Your task to perform on an android device: Open display settings Image 0: 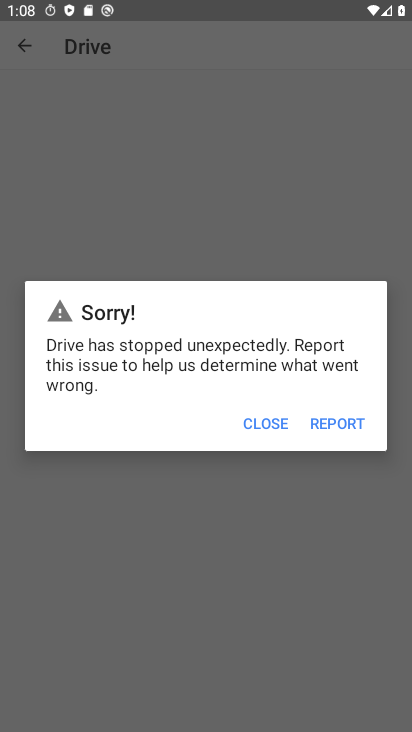
Step 0: press home button
Your task to perform on an android device: Open display settings Image 1: 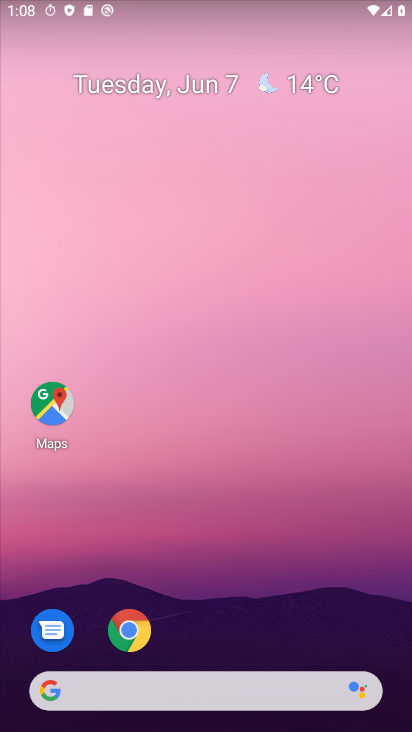
Step 1: drag from (216, 621) to (374, 6)
Your task to perform on an android device: Open display settings Image 2: 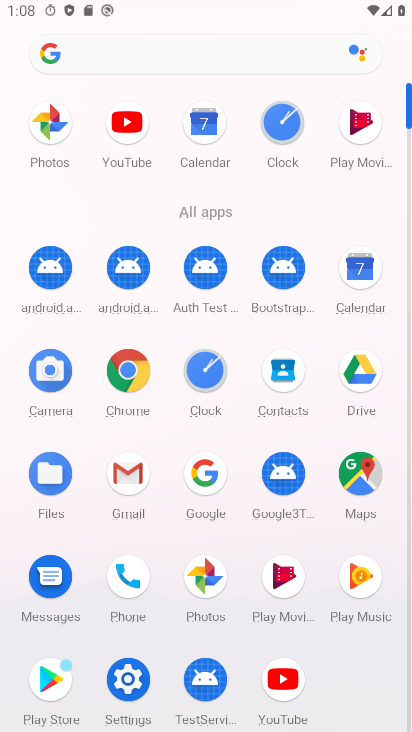
Step 2: click (138, 679)
Your task to perform on an android device: Open display settings Image 3: 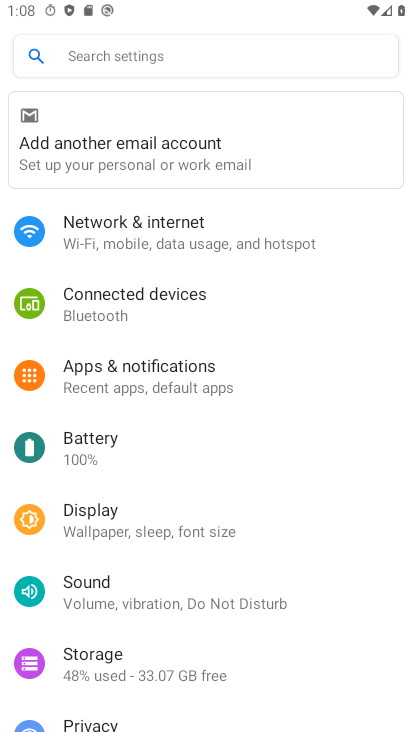
Step 3: click (105, 527)
Your task to perform on an android device: Open display settings Image 4: 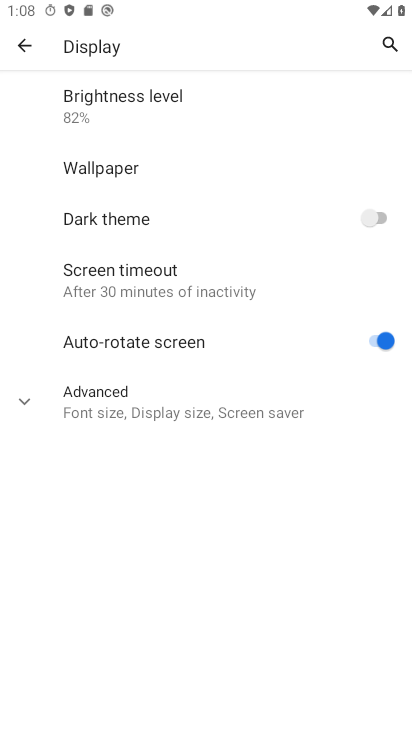
Step 4: task complete